Your task to perform on an android device: What is the capital of Mexico? Image 0: 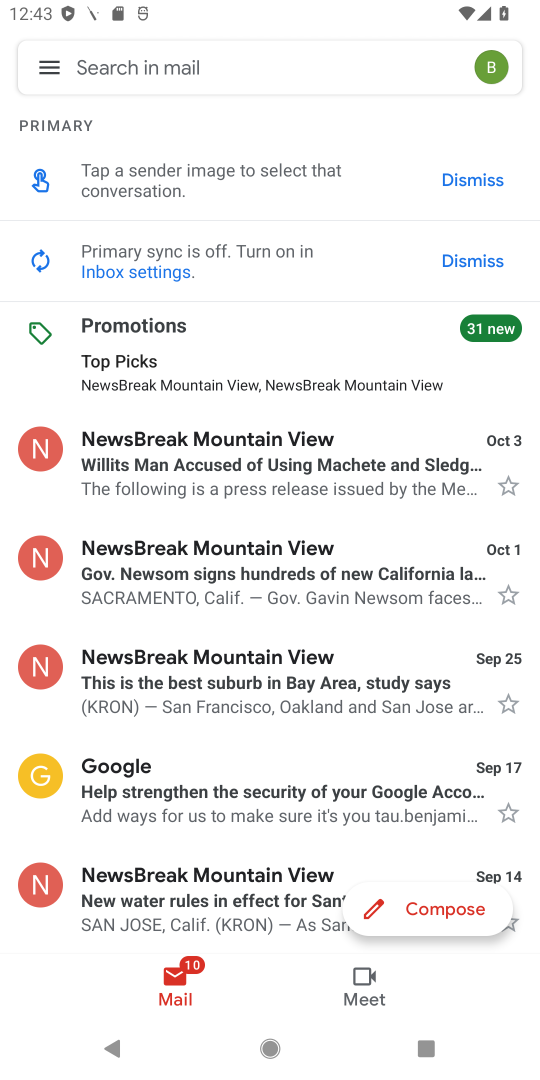
Step 0: press home button
Your task to perform on an android device: What is the capital of Mexico? Image 1: 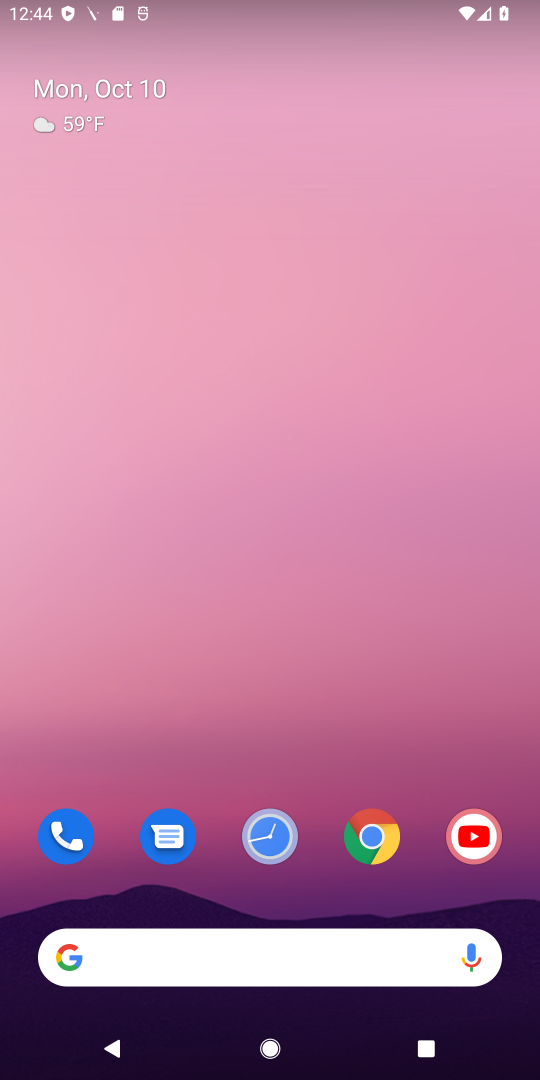
Step 1: click (381, 839)
Your task to perform on an android device: What is the capital of Mexico? Image 2: 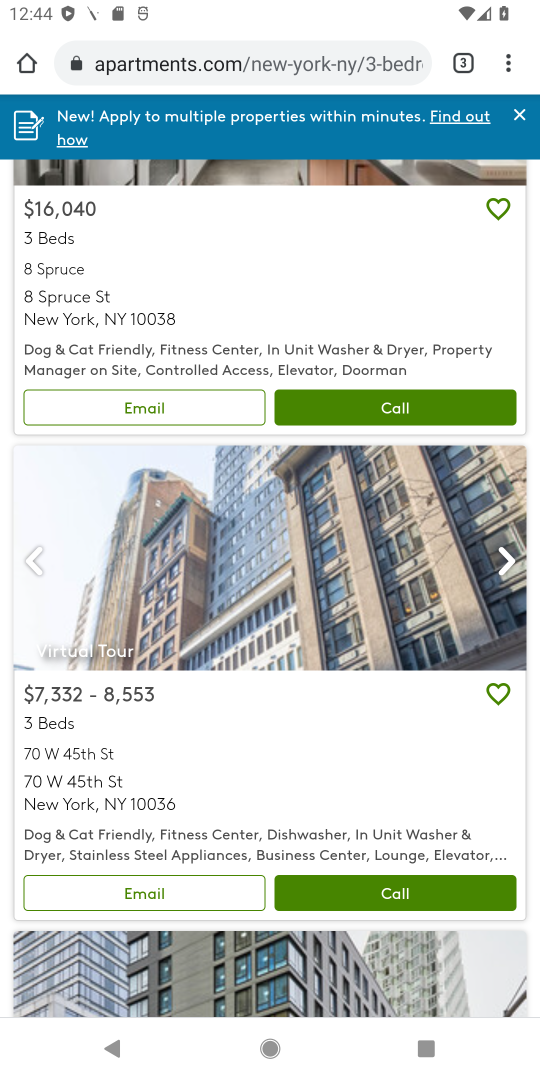
Step 2: click (333, 57)
Your task to perform on an android device: What is the capital of Mexico? Image 3: 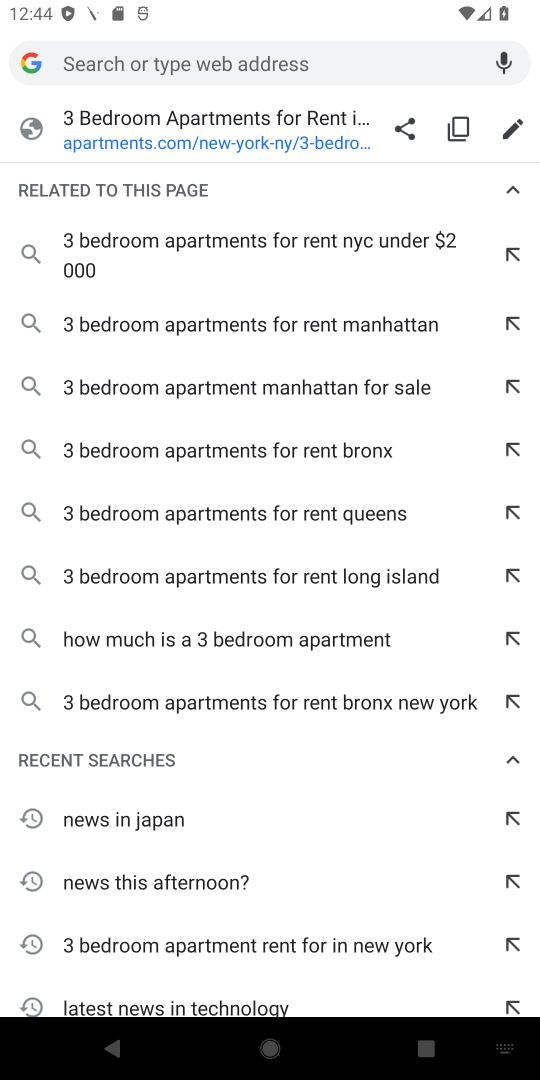
Step 3: type "capital of Mexico"
Your task to perform on an android device: What is the capital of Mexico? Image 4: 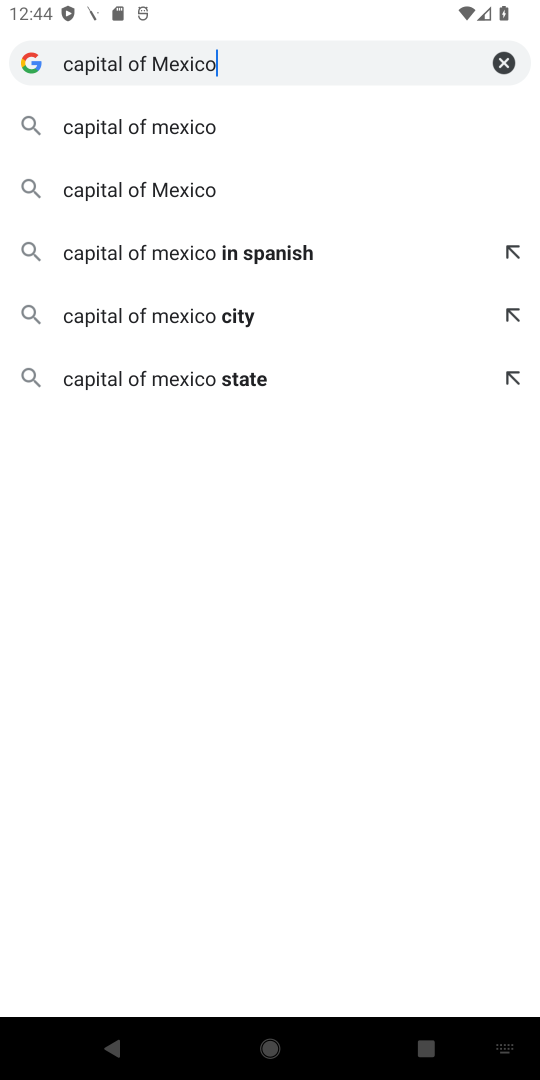
Step 4: click (217, 117)
Your task to perform on an android device: What is the capital of Mexico? Image 5: 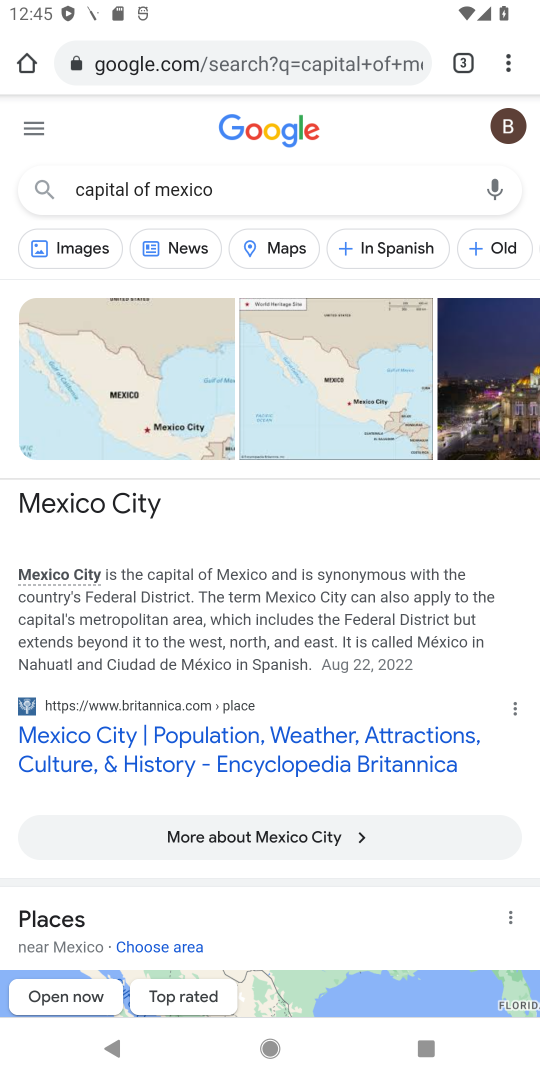
Step 5: task complete